Your task to perform on an android device: open chrome and create a bookmark for the current page Image 0: 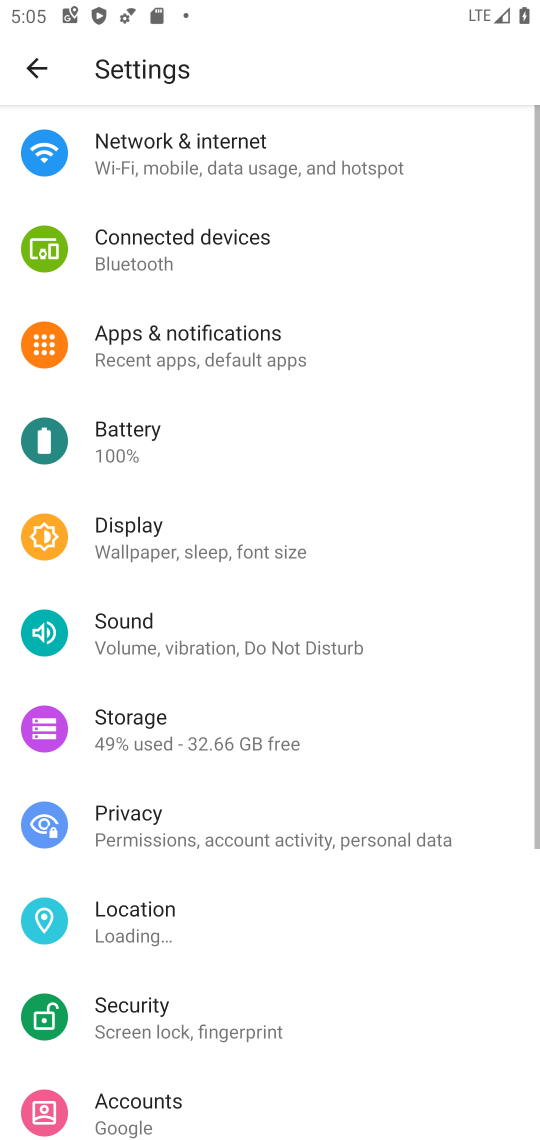
Step 0: press home button
Your task to perform on an android device: open chrome and create a bookmark for the current page Image 1: 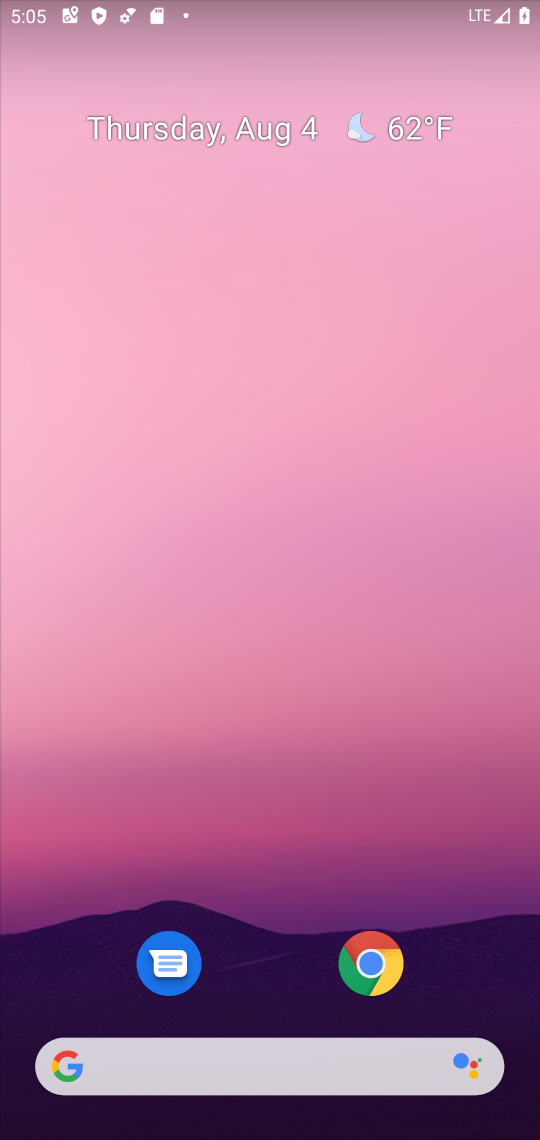
Step 1: click (379, 982)
Your task to perform on an android device: open chrome and create a bookmark for the current page Image 2: 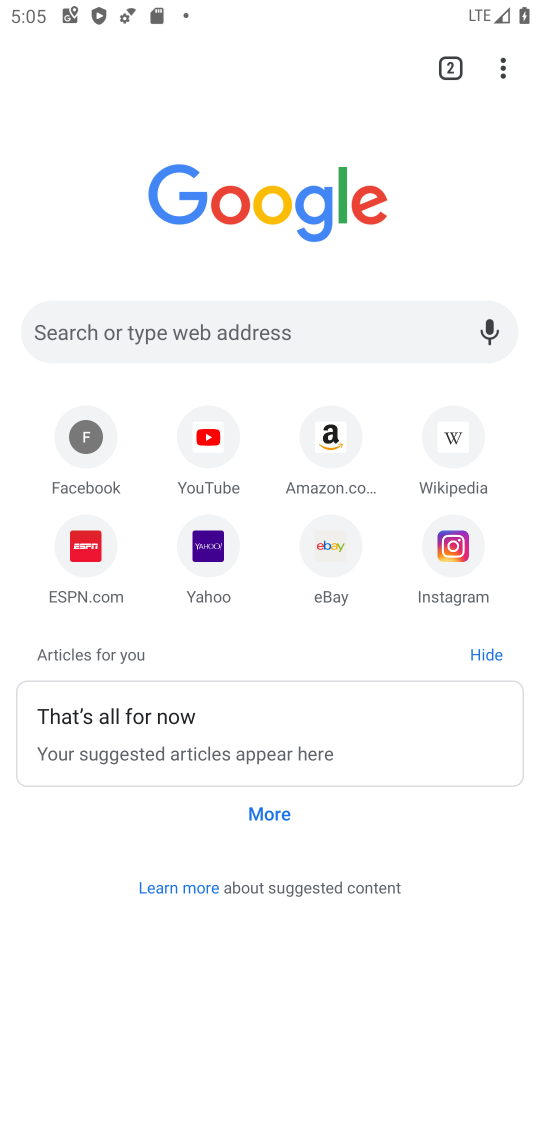
Step 2: click (504, 65)
Your task to perform on an android device: open chrome and create a bookmark for the current page Image 3: 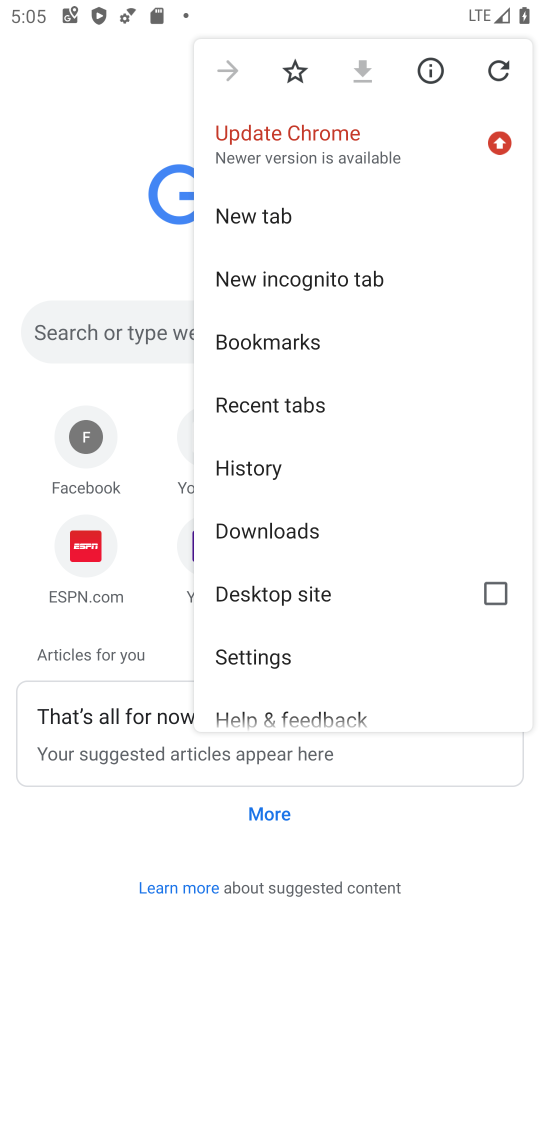
Step 3: click (298, 71)
Your task to perform on an android device: open chrome and create a bookmark for the current page Image 4: 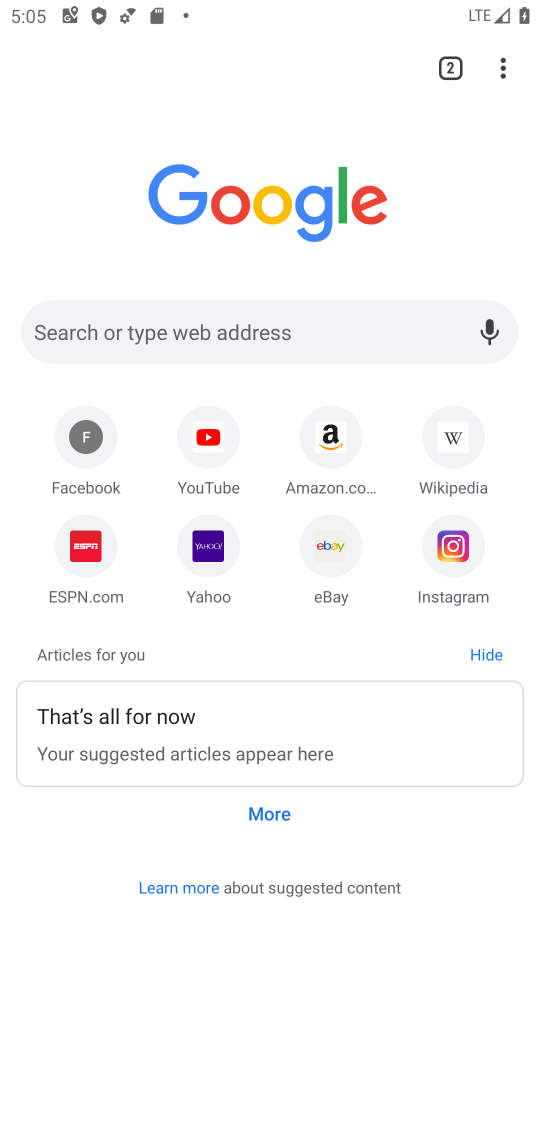
Step 4: task complete